Your task to perform on an android device: Open the map Image 0: 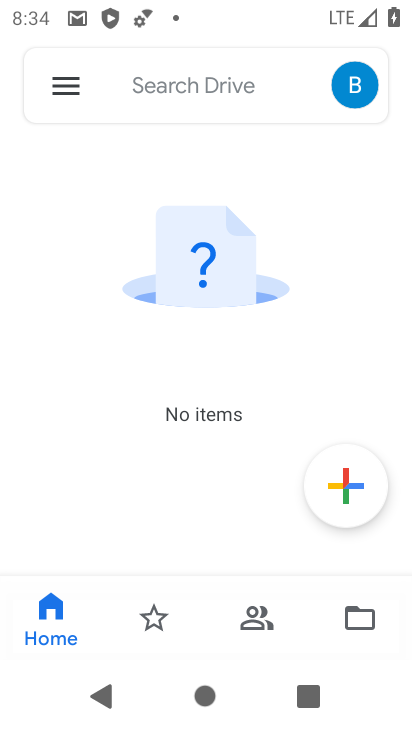
Step 0: press back button
Your task to perform on an android device: Open the map Image 1: 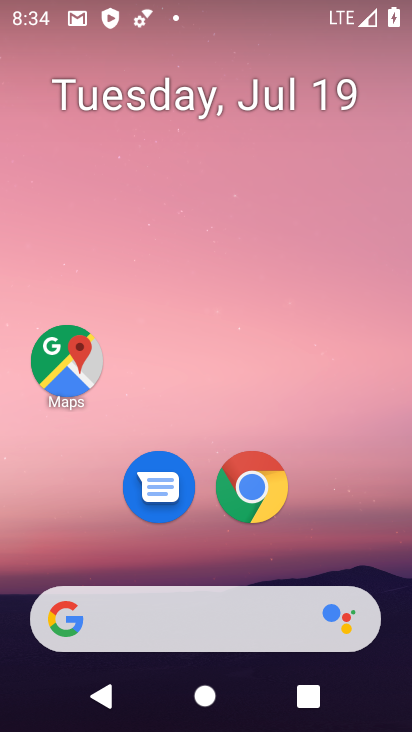
Step 1: click (74, 345)
Your task to perform on an android device: Open the map Image 2: 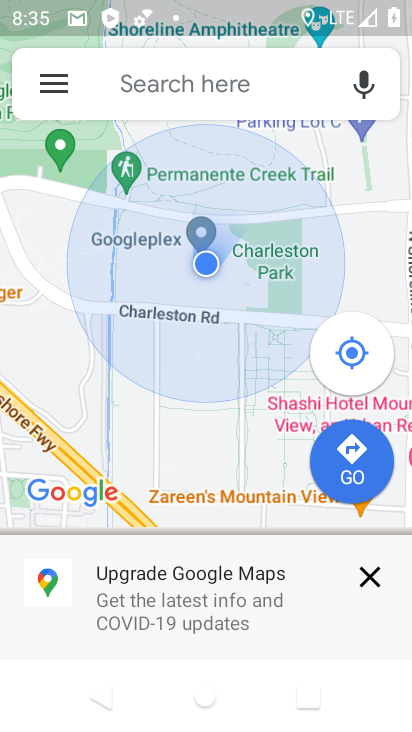
Step 2: task complete